Your task to perform on an android device: Is it going to rain today? Image 0: 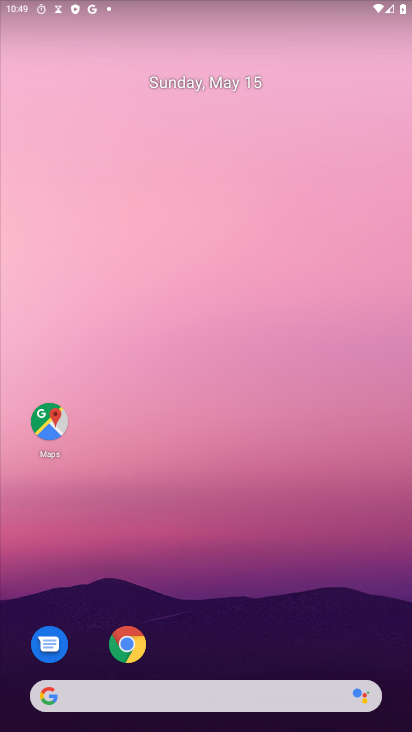
Step 0: drag from (231, 621) to (192, 182)
Your task to perform on an android device: Is it going to rain today? Image 1: 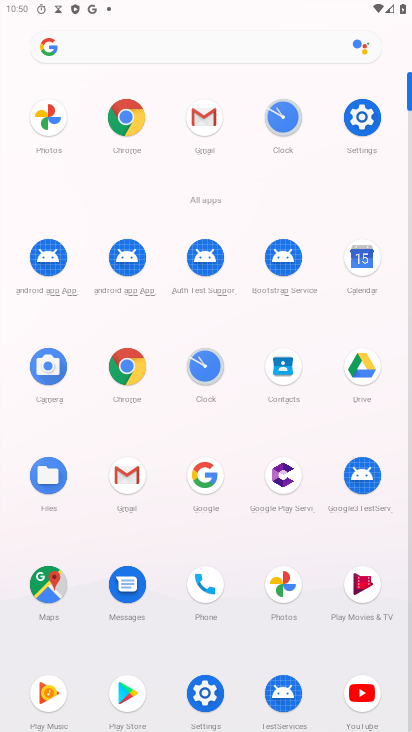
Step 1: click (129, 124)
Your task to perform on an android device: Is it going to rain today? Image 2: 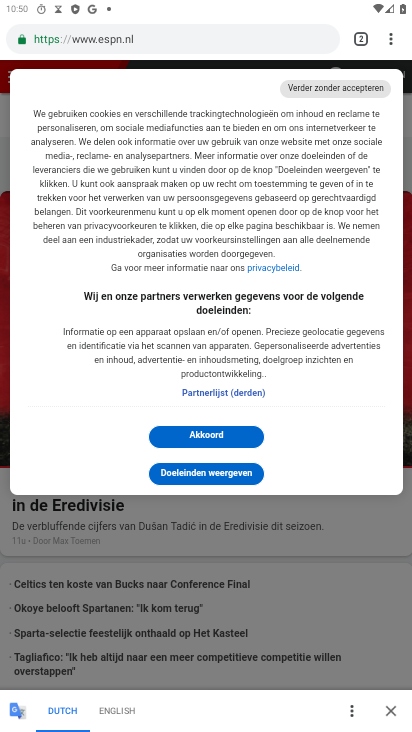
Step 2: click (147, 35)
Your task to perform on an android device: Is it going to rain today? Image 3: 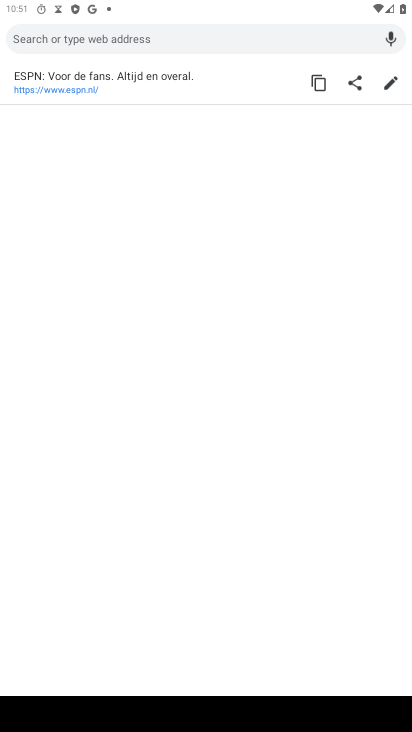
Step 3: type "Is it going to rain today?"
Your task to perform on an android device: Is it going to rain today? Image 4: 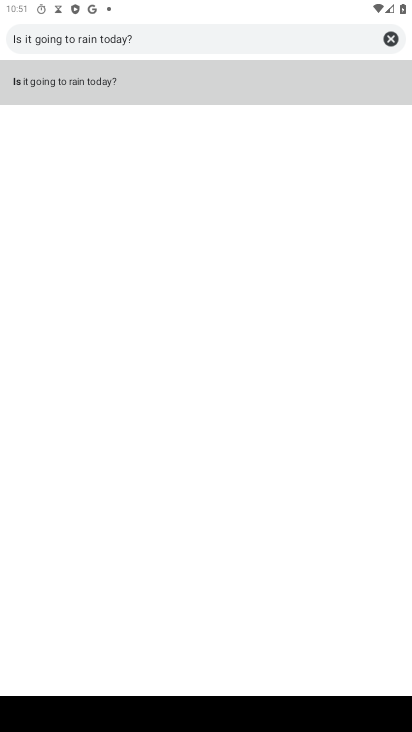
Step 4: press enter
Your task to perform on an android device: Is it going to rain today? Image 5: 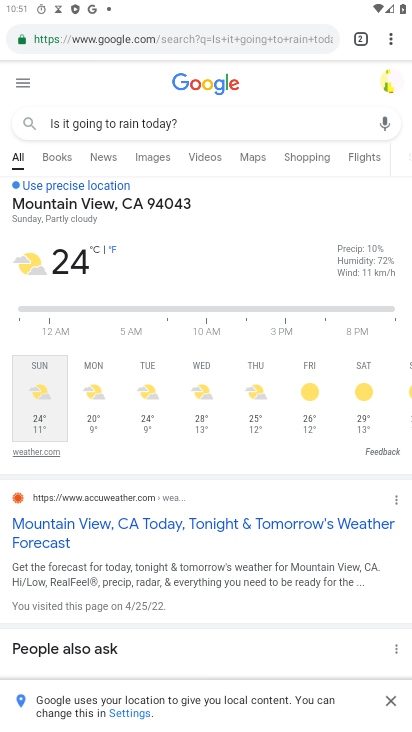
Step 5: click (321, 522)
Your task to perform on an android device: Is it going to rain today? Image 6: 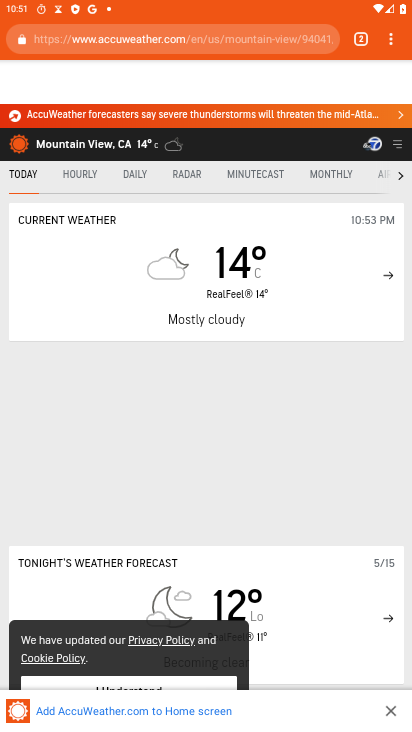
Step 6: task complete